Your task to perform on an android device: Do I have any events tomorrow? Image 0: 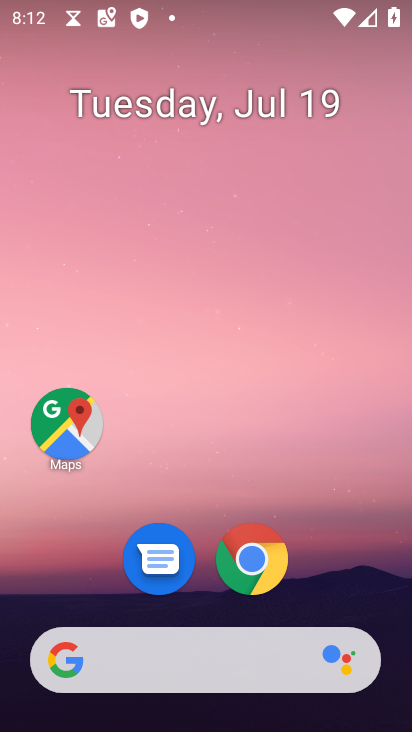
Step 0: drag from (81, 555) to (287, 27)
Your task to perform on an android device: Do I have any events tomorrow? Image 1: 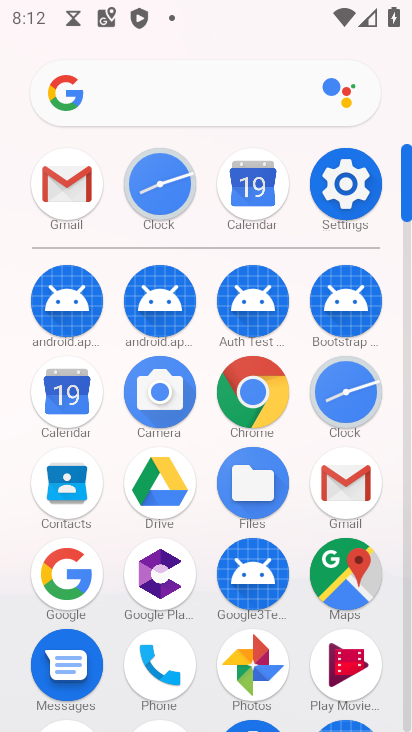
Step 1: click (265, 206)
Your task to perform on an android device: Do I have any events tomorrow? Image 2: 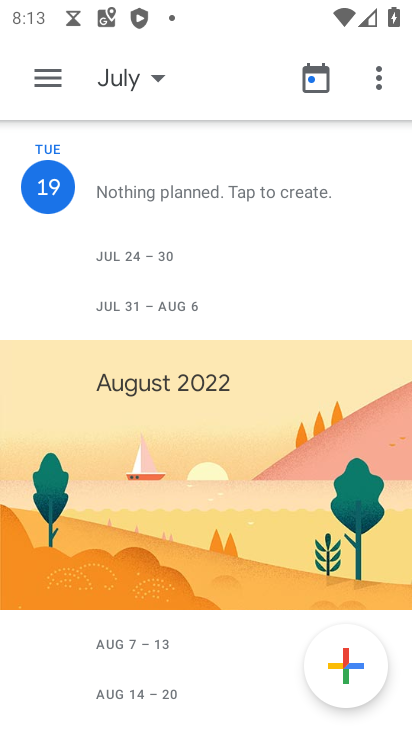
Step 2: click (131, 74)
Your task to perform on an android device: Do I have any events tomorrow? Image 3: 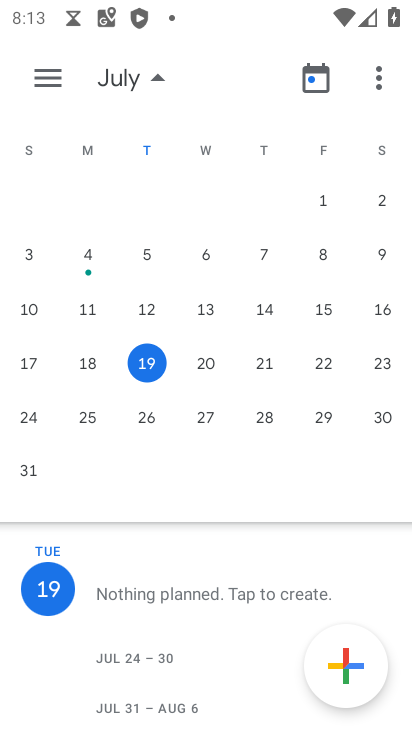
Step 3: click (203, 374)
Your task to perform on an android device: Do I have any events tomorrow? Image 4: 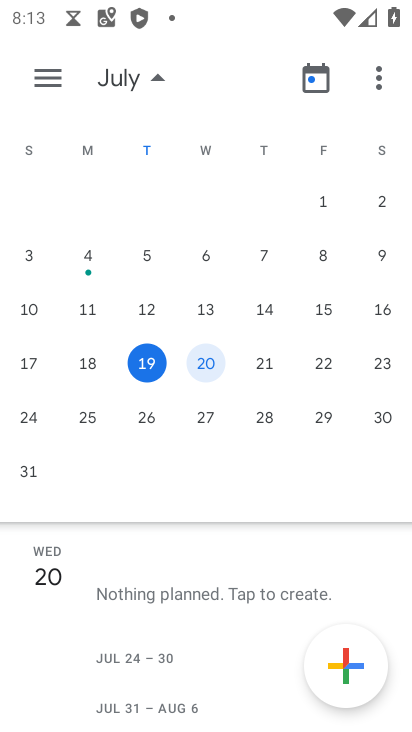
Step 4: task complete